Your task to perform on an android device: Open eBay Image 0: 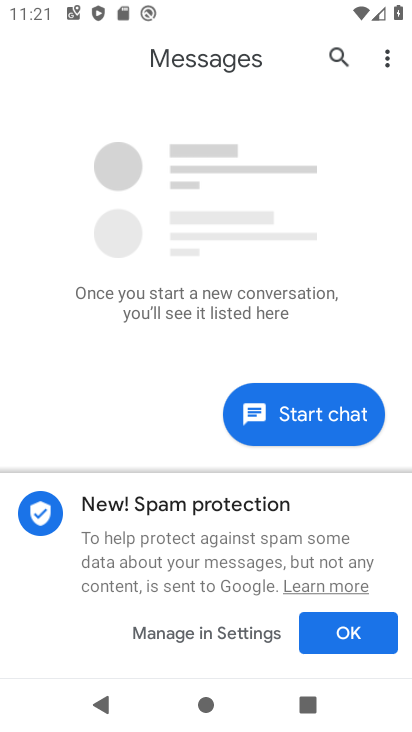
Step 0: press home button
Your task to perform on an android device: Open eBay Image 1: 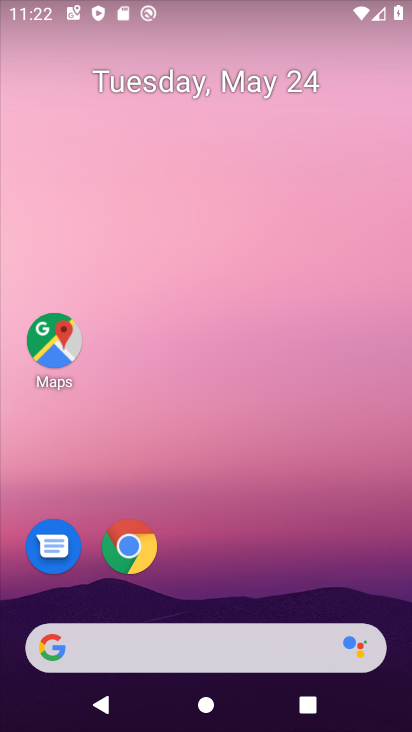
Step 1: drag from (241, 591) to (192, 187)
Your task to perform on an android device: Open eBay Image 2: 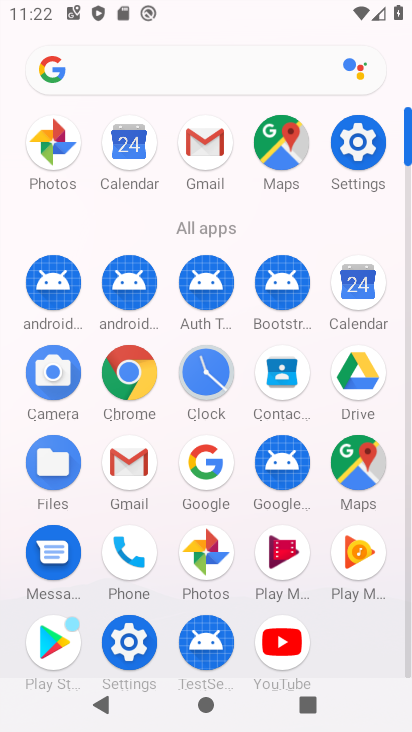
Step 2: click (124, 372)
Your task to perform on an android device: Open eBay Image 3: 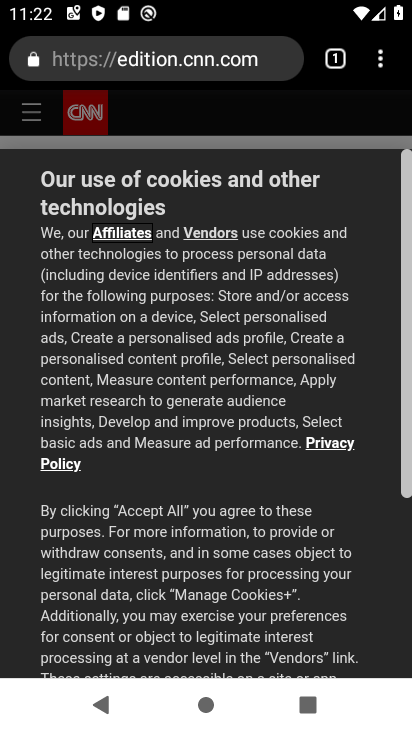
Step 3: click (349, 56)
Your task to perform on an android device: Open eBay Image 4: 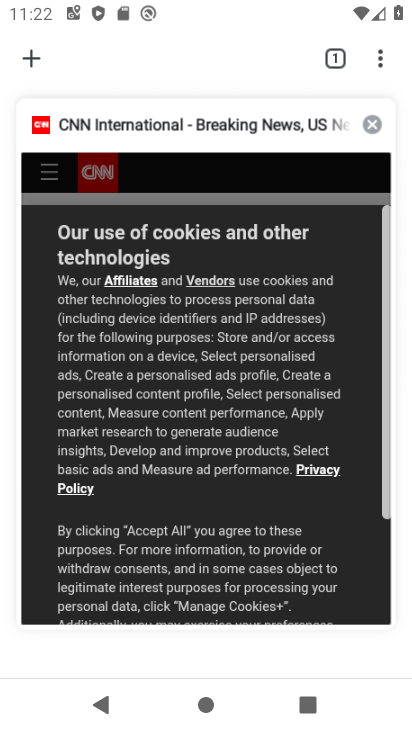
Step 4: click (31, 65)
Your task to perform on an android device: Open eBay Image 5: 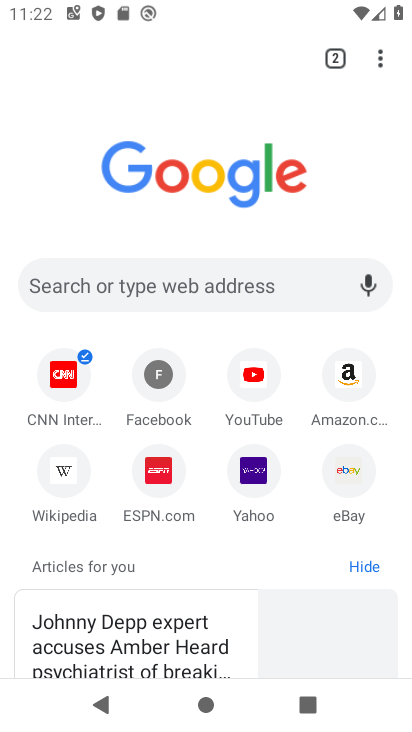
Step 5: click (341, 506)
Your task to perform on an android device: Open eBay Image 6: 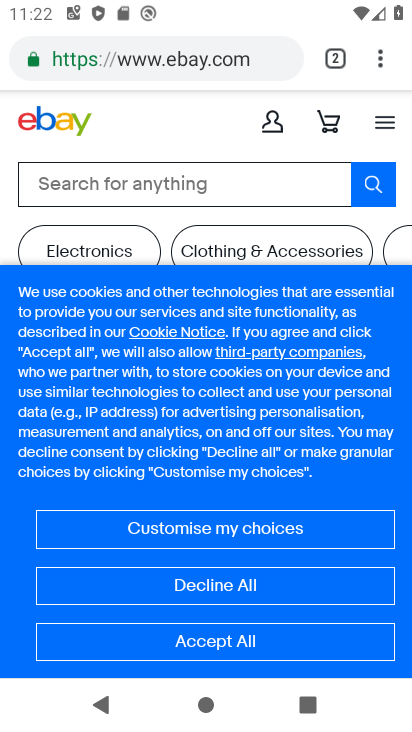
Step 6: task complete